Your task to perform on an android device: move an email to a new category in the gmail app Image 0: 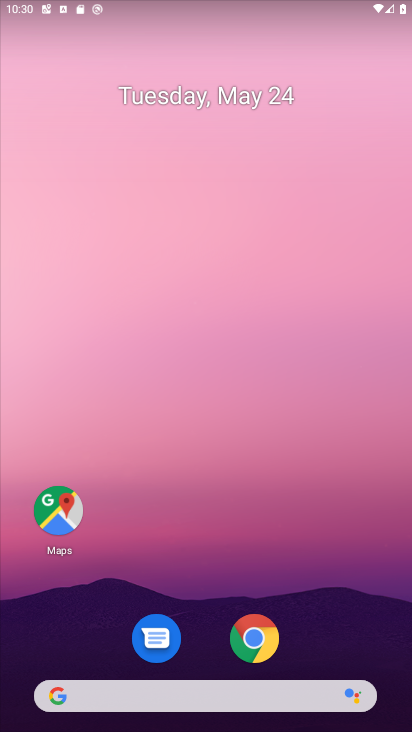
Step 0: drag from (268, 708) to (62, 31)
Your task to perform on an android device: move an email to a new category in the gmail app Image 1: 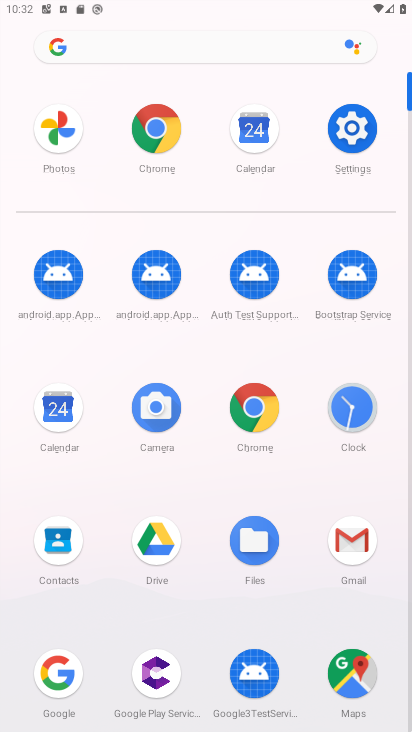
Step 1: click (362, 543)
Your task to perform on an android device: move an email to a new category in the gmail app Image 2: 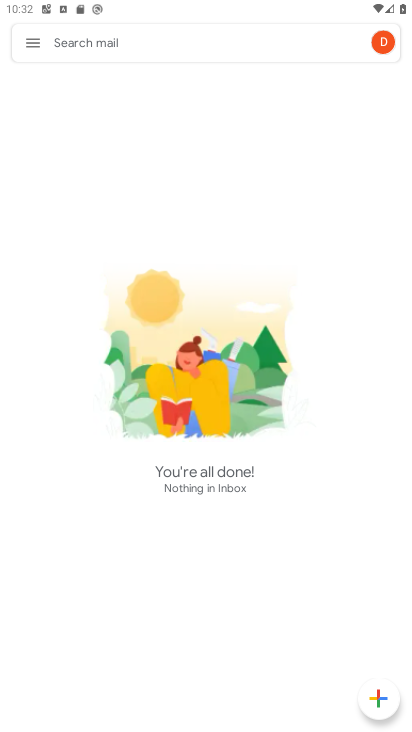
Step 2: task complete